Your task to perform on an android device: turn on javascript in the chrome app Image 0: 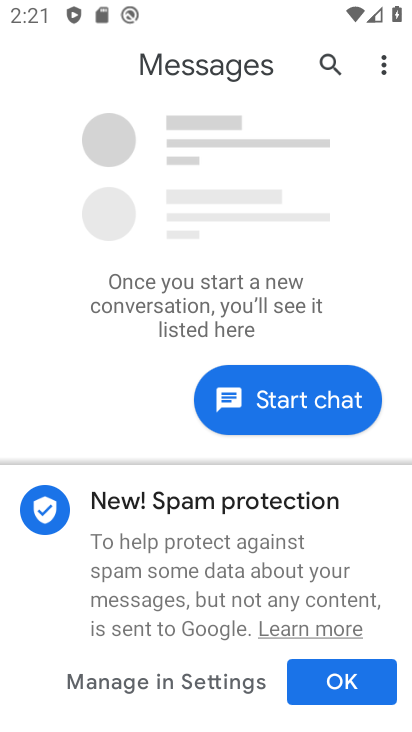
Step 0: press home button
Your task to perform on an android device: turn on javascript in the chrome app Image 1: 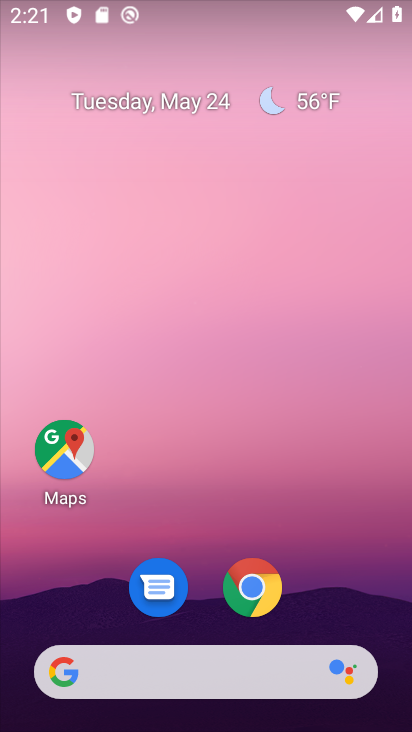
Step 1: click (260, 570)
Your task to perform on an android device: turn on javascript in the chrome app Image 2: 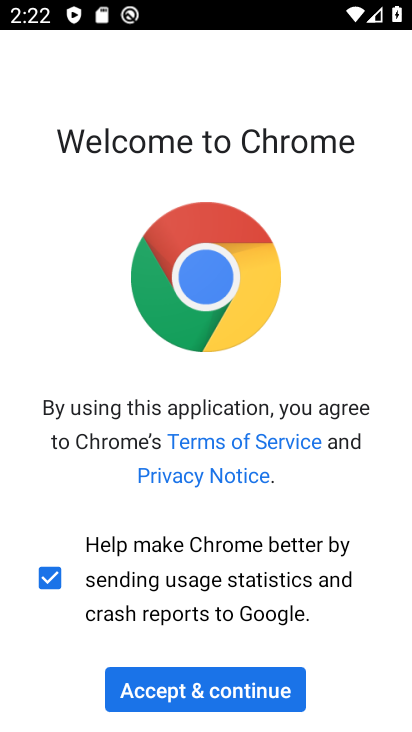
Step 2: click (200, 681)
Your task to perform on an android device: turn on javascript in the chrome app Image 3: 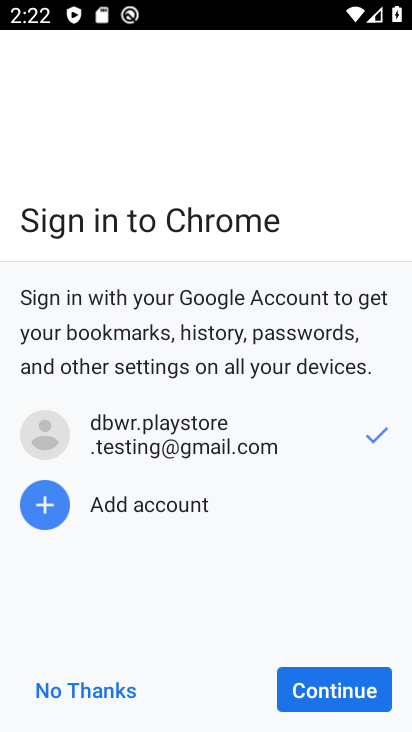
Step 3: click (343, 690)
Your task to perform on an android device: turn on javascript in the chrome app Image 4: 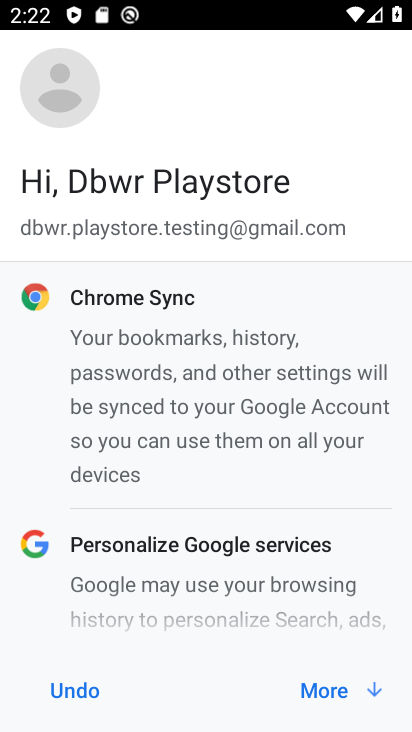
Step 4: click (249, 721)
Your task to perform on an android device: turn on javascript in the chrome app Image 5: 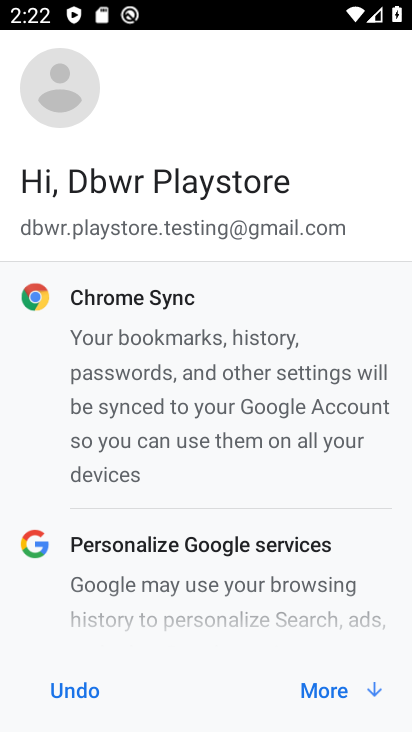
Step 5: click (324, 696)
Your task to perform on an android device: turn on javascript in the chrome app Image 6: 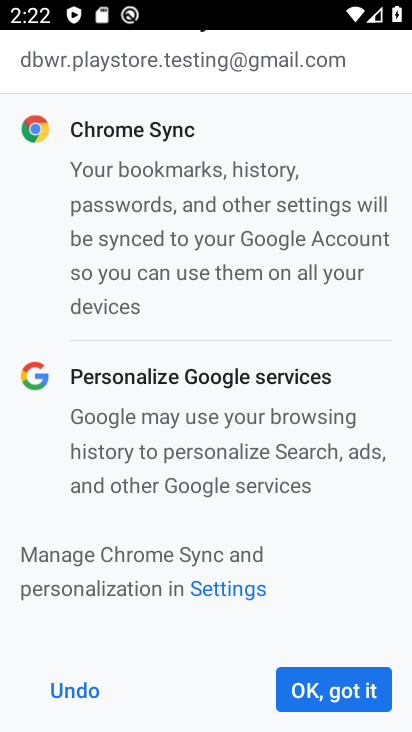
Step 6: click (324, 696)
Your task to perform on an android device: turn on javascript in the chrome app Image 7: 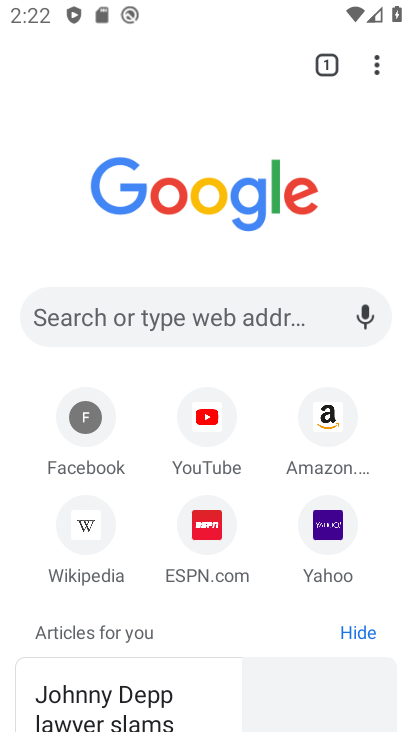
Step 7: click (389, 67)
Your task to perform on an android device: turn on javascript in the chrome app Image 8: 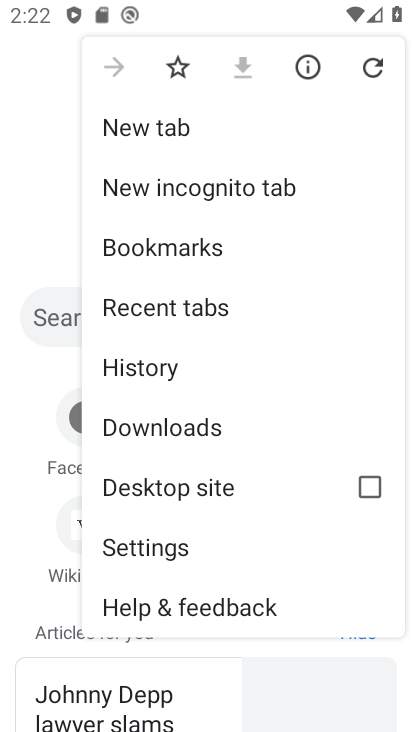
Step 8: click (204, 529)
Your task to perform on an android device: turn on javascript in the chrome app Image 9: 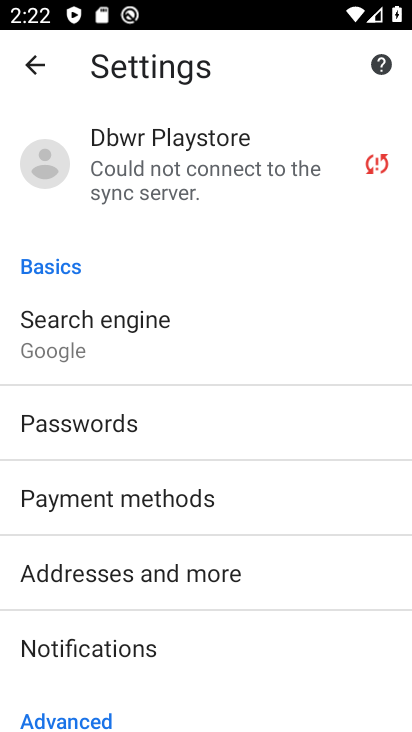
Step 9: drag from (157, 658) to (257, 226)
Your task to perform on an android device: turn on javascript in the chrome app Image 10: 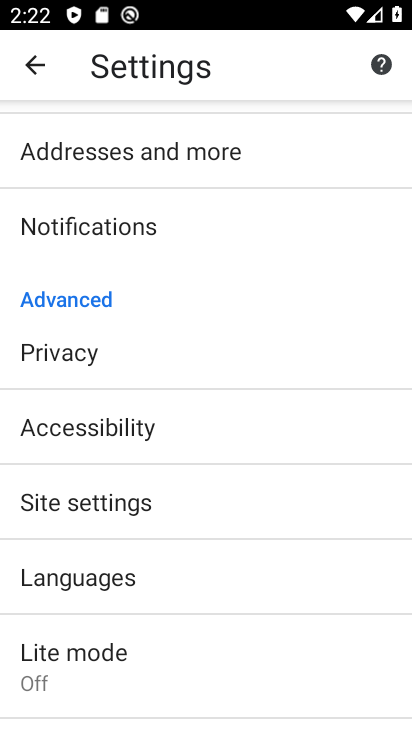
Step 10: click (68, 517)
Your task to perform on an android device: turn on javascript in the chrome app Image 11: 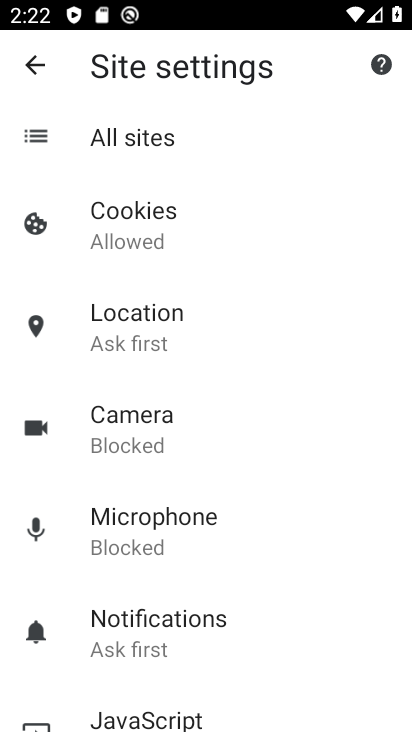
Step 11: drag from (158, 672) to (300, 235)
Your task to perform on an android device: turn on javascript in the chrome app Image 12: 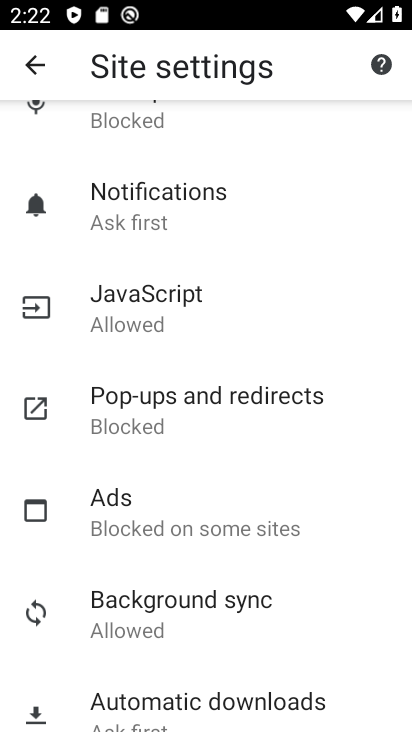
Step 12: click (194, 331)
Your task to perform on an android device: turn on javascript in the chrome app Image 13: 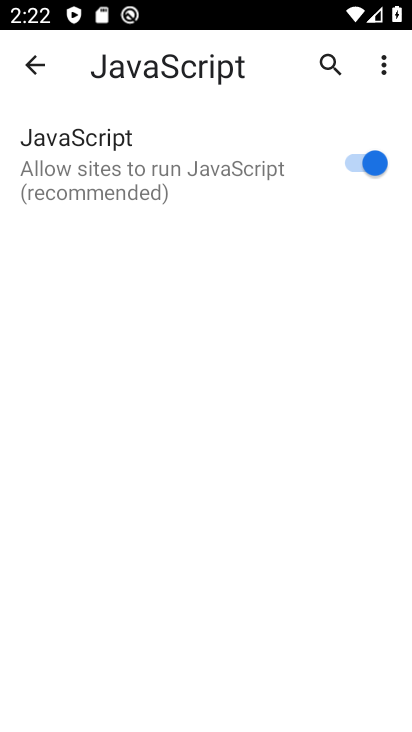
Step 13: task complete